Your task to perform on an android device: turn on showing notifications on the lock screen Image 0: 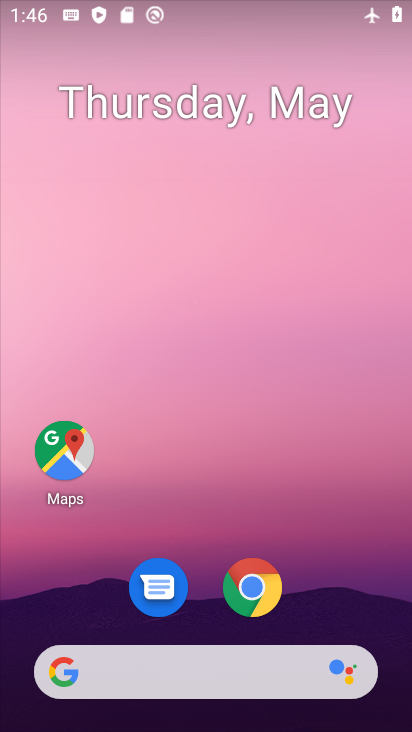
Step 0: drag from (327, 523) to (208, 65)
Your task to perform on an android device: turn on showing notifications on the lock screen Image 1: 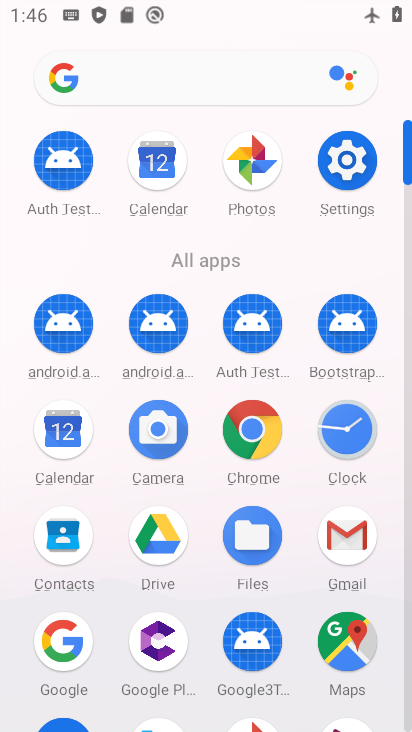
Step 1: click (333, 167)
Your task to perform on an android device: turn on showing notifications on the lock screen Image 2: 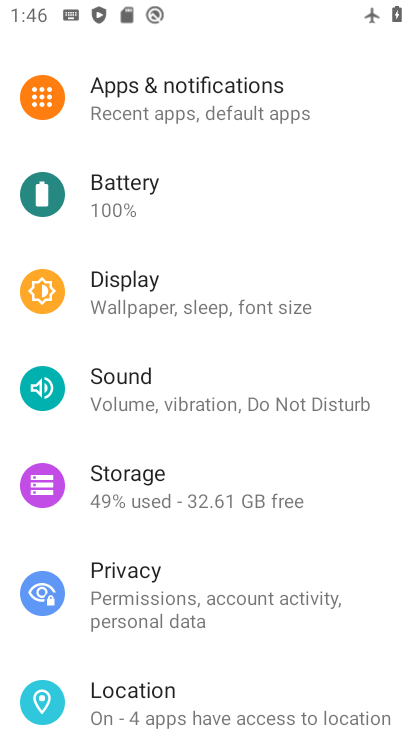
Step 2: click (199, 94)
Your task to perform on an android device: turn on showing notifications on the lock screen Image 3: 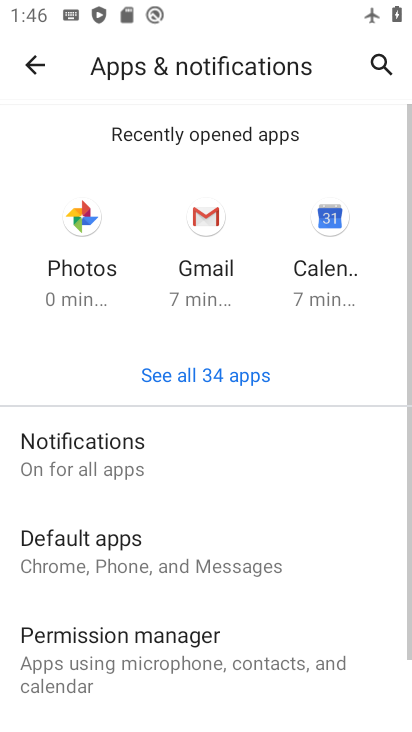
Step 3: drag from (215, 505) to (131, 121)
Your task to perform on an android device: turn on showing notifications on the lock screen Image 4: 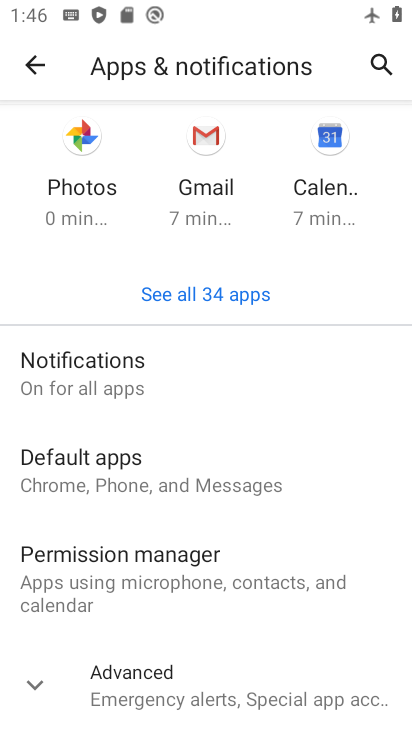
Step 4: drag from (191, 616) to (142, 323)
Your task to perform on an android device: turn on showing notifications on the lock screen Image 5: 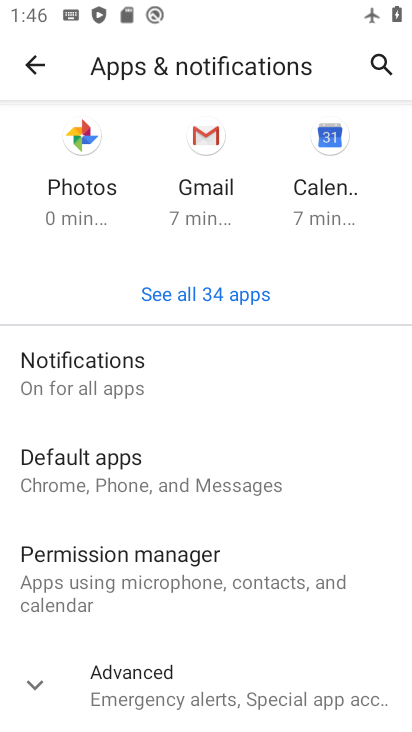
Step 5: drag from (172, 508) to (132, 297)
Your task to perform on an android device: turn on showing notifications on the lock screen Image 6: 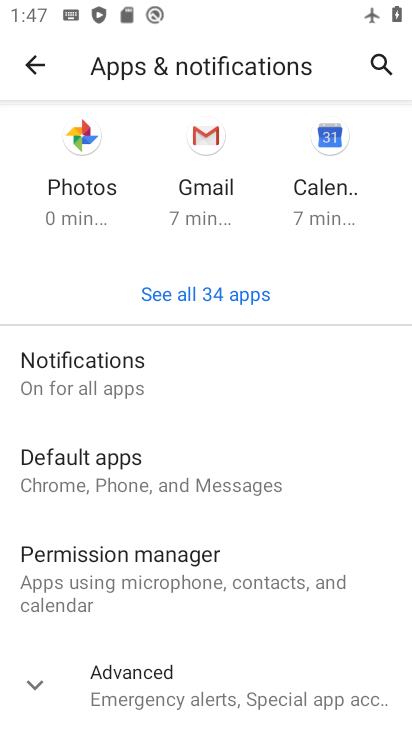
Step 6: drag from (161, 603) to (120, 335)
Your task to perform on an android device: turn on showing notifications on the lock screen Image 7: 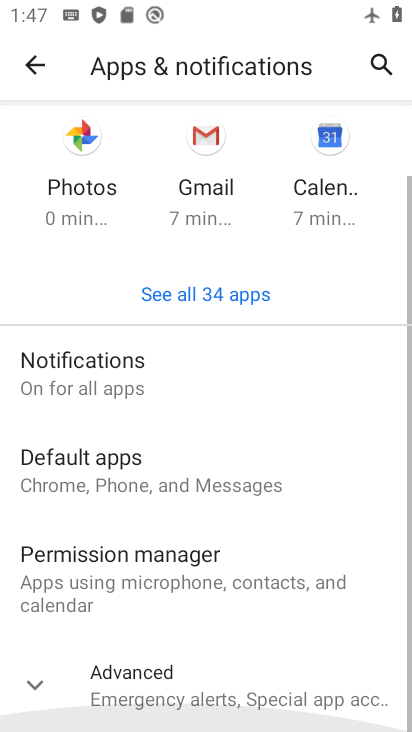
Step 7: click (99, 362)
Your task to perform on an android device: turn on showing notifications on the lock screen Image 8: 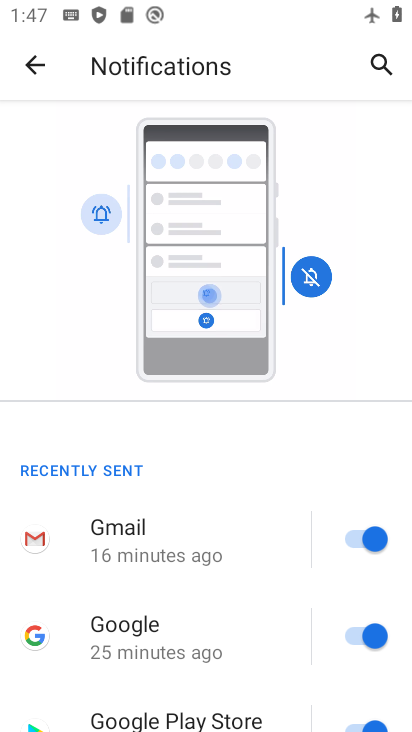
Step 8: drag from (231, 536) to (190, 173)
Your task to perform on an android device: turn on showing notifications on the lock screen Image 9: 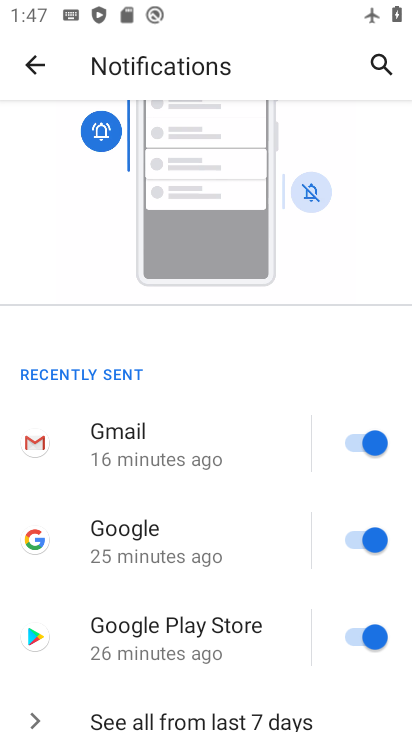
Step 9: drag from (232, 591) to (180, 297)
Your task to perform on an android device: turn on showing notifications on the lock screen Image 10: 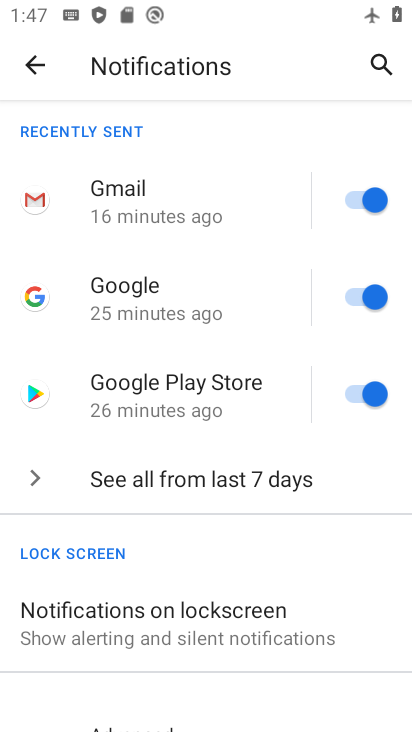
Step 10: click (189, 607)
Your task to perform on an android device: turn on showing notifications on the lock screen Image 11: 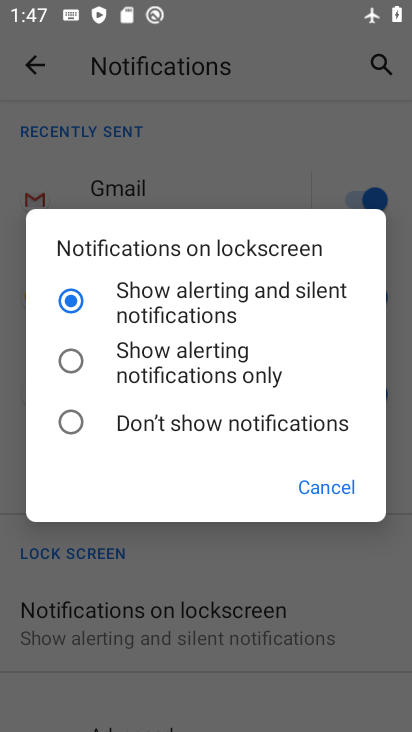
Step 11: task complete